Your task to perform on an android device: open app "Microsoft Authenticator" (install if not already installed) Image 0: 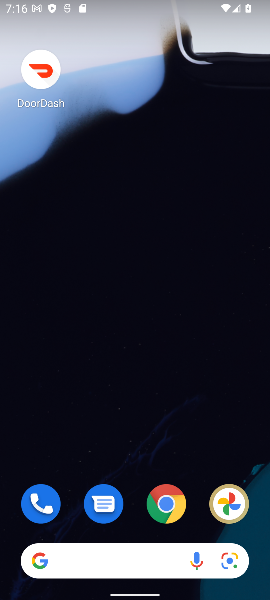
Step 0: drag from (120, 540) to (140, 45)
Your task to perform on an android device: open app "Microsoft Authenticator" (install if not already installed) Image 1: 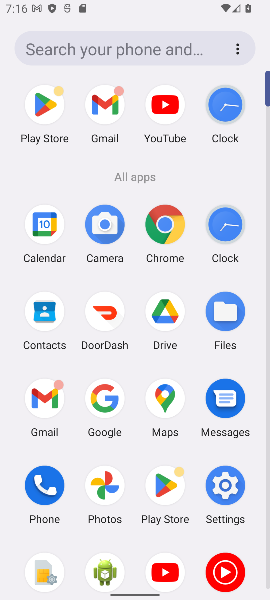
Step 1: click (164, 475)
Your task to perform on an android device: open app "Microsoft Authenticator" (install if not already installed) Image 2: 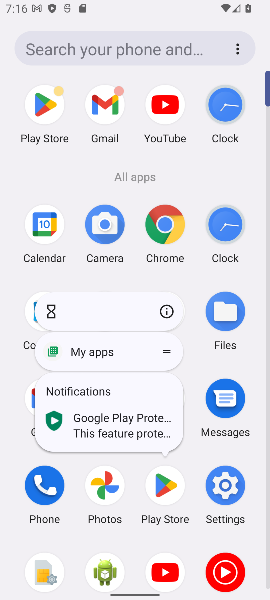
Step 2: click (159, 493)
Your task to perform on an android device: open app "Microsoft Authenticator" (install if not already installed) Image 3: 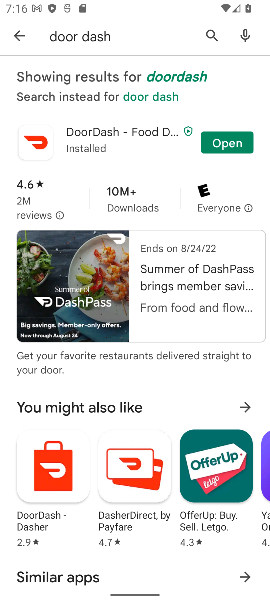
Step 3: click (210, 34)
Your task to perform on an android device: open app "Microsoft Authenticator" (install if not already installed) Image 4: 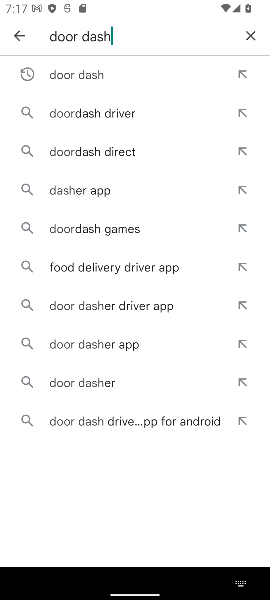
Step 4: click (253, 35)
Your task to perform on an android device: open app "Microsoft Authenticator" (install if not already installed) Image 5: 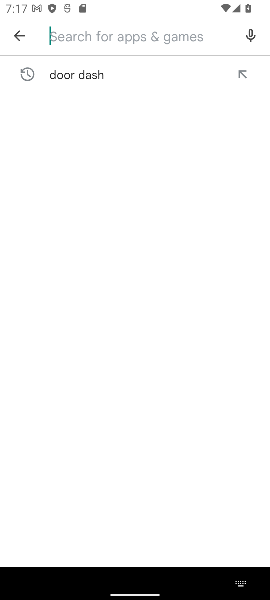
Step 5: type "Microsoft Authenticator"
Your task to perform on an android device: open app "Microsoft Authenticator" (install if not already installed) Image 6: 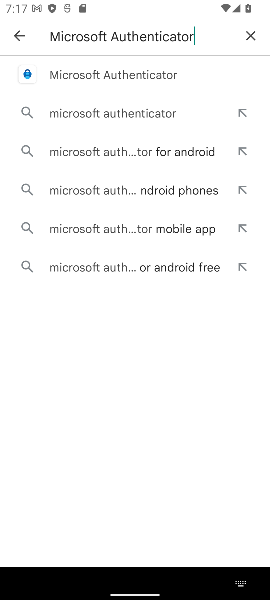
Step 6: click (142, 77)
Your task to perform on an android device: open app "Microsoft Authenticator" (install if not already installed) Image 7: 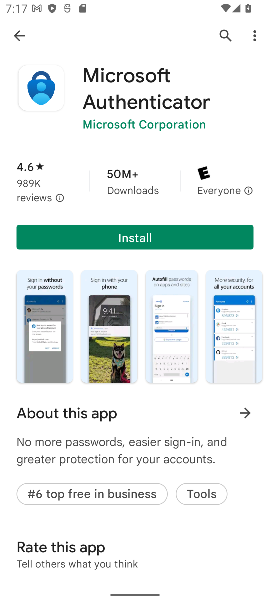
Step 7: click (140, 243)
Your task to perform on an android device: open app "Microsoft Authenticator" (install if not already installed) Image 8: 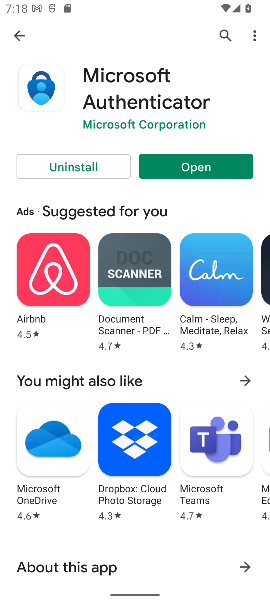
Step 8: click (178, 174)
Your task to perform on an android device: open app "Microsoft Authenticator" (install if not already installed) Image 9: 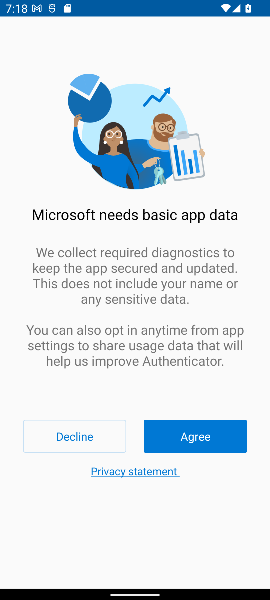
Step 9: task complete